Your task to perform on an android device: Go to battery settings Image 0: 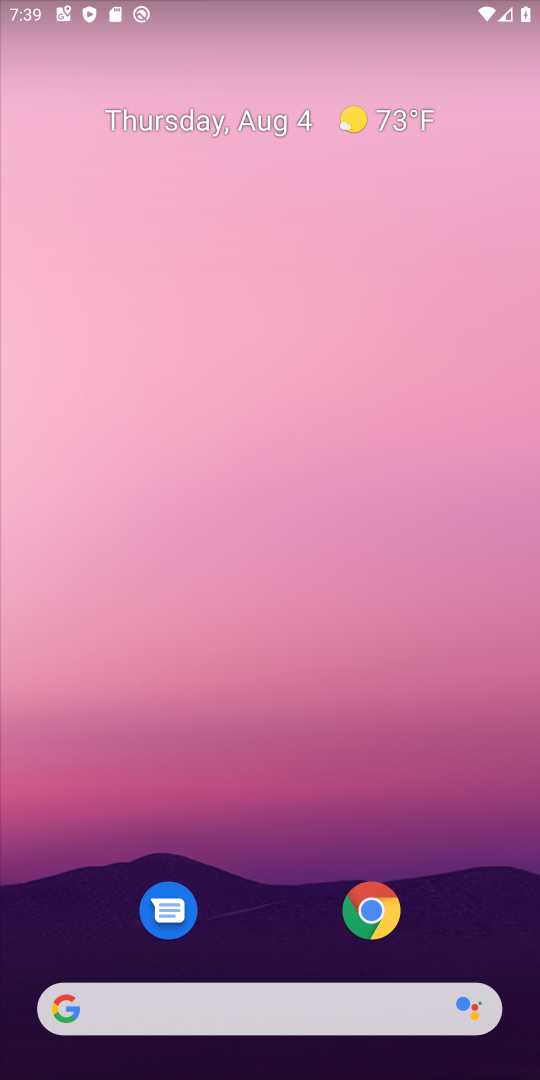
Step 0: drag from (285, 910) to (351, 521)
Your task to perform on an android device: Go to battery settings Image 1: 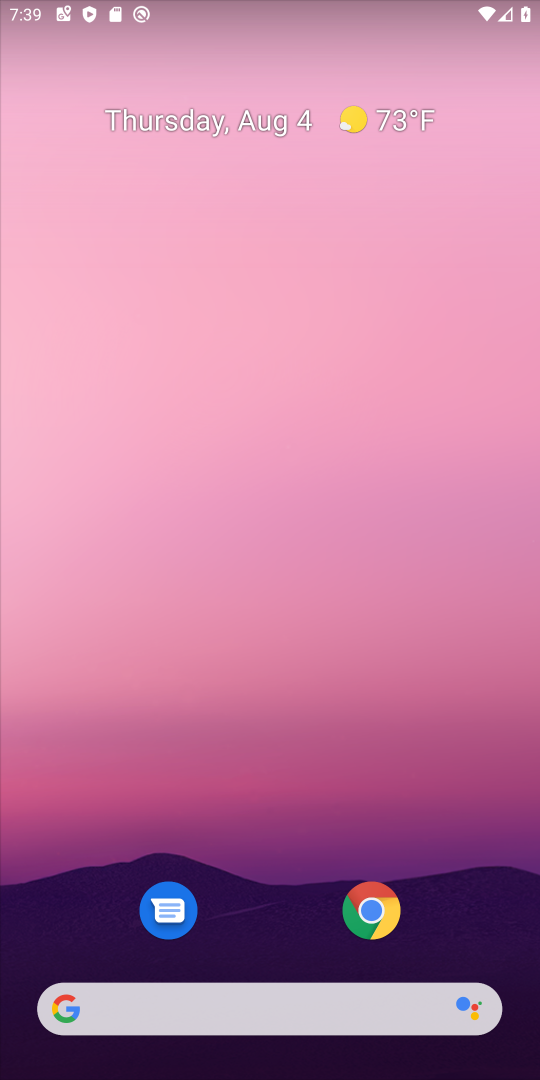
Step 1: drag from (305, 875) to (383, 246)
Your task to perform on an android device: Go to battery settings Image 2: 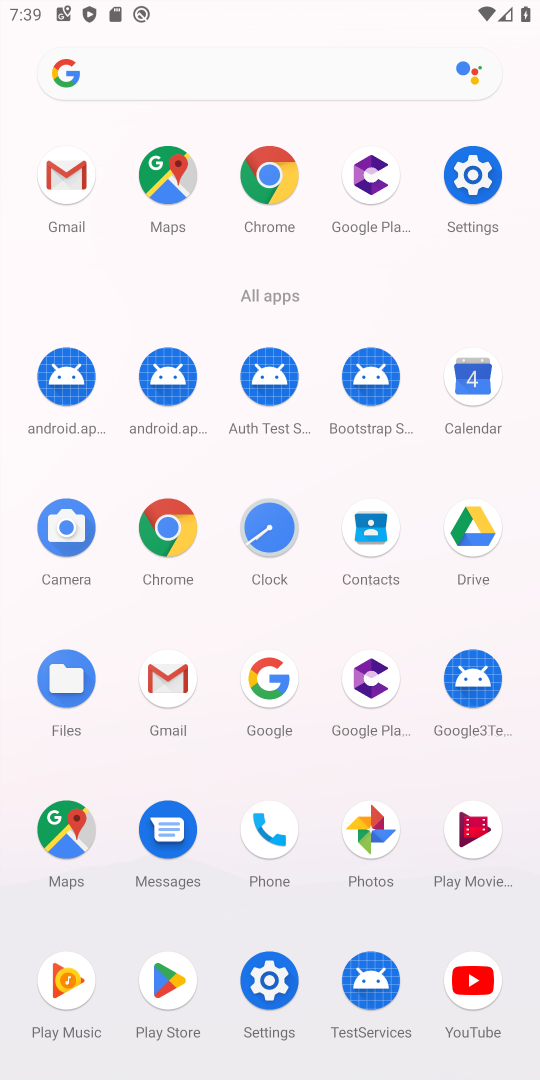
Step 2: click (493, 184)
Your task to perform on an android device: Go to battery settings Image 3: 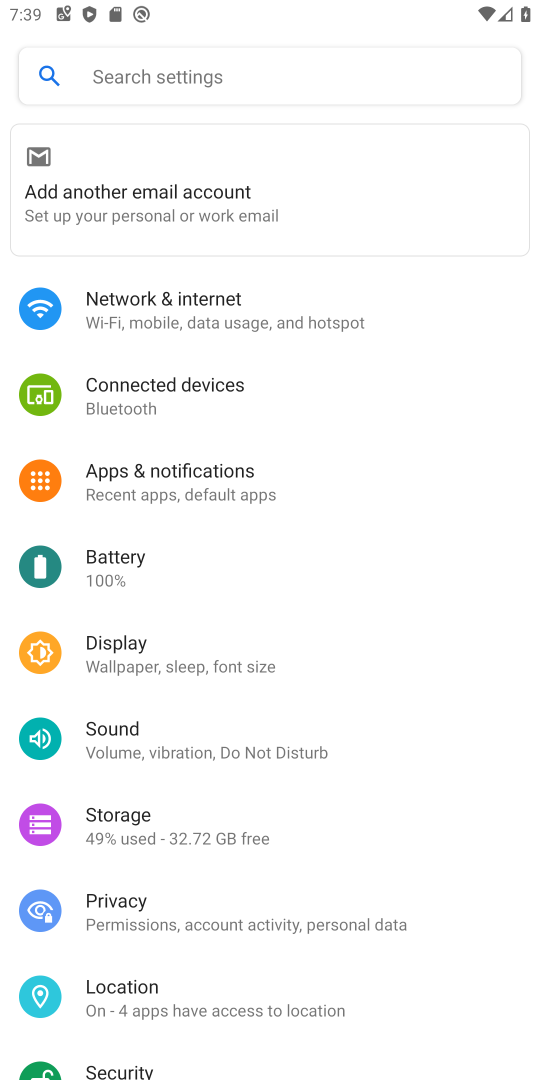
Step 3: click (131, 570)
Your task to perform on an android device: Go to battery settings Image 4: 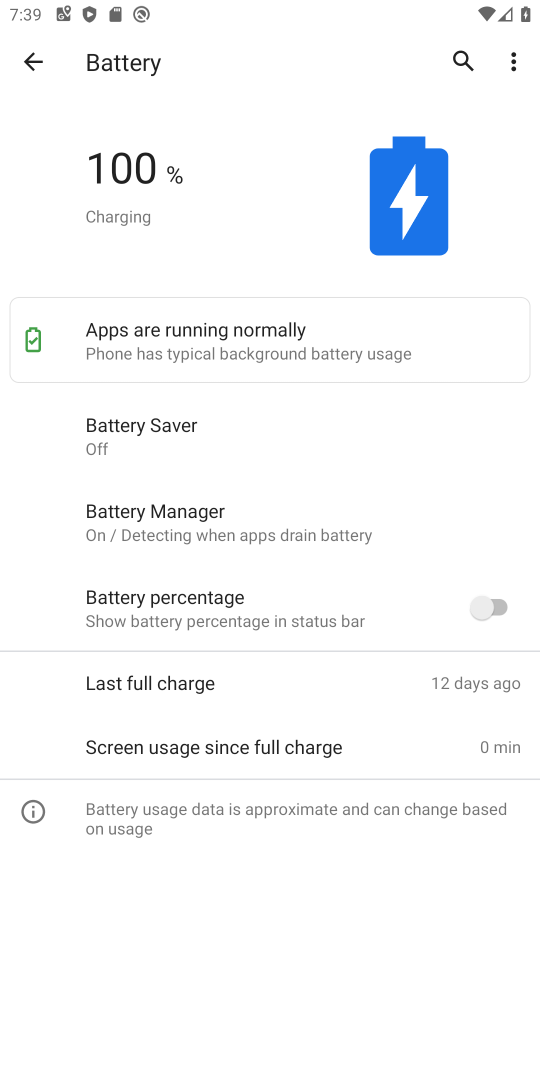
Step 4: task complete